Your task to perform on an android device: toggle sleep mode Image 0: 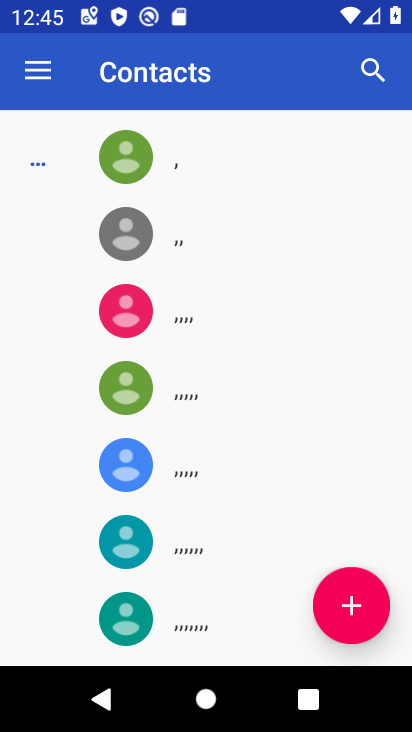
Step 0: press home button
Your task to perform on an android device: toggle sleep mode Image 1: 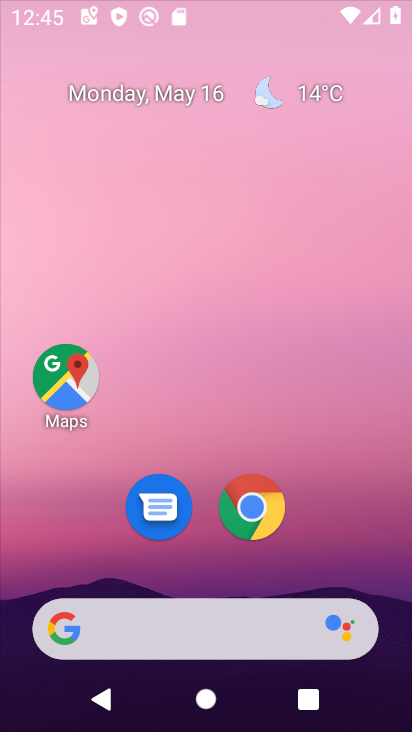
Step 1: drag from (262, 584) to (292, 181)
Your task to perform on an android device: toggle sleep mode Image 2: 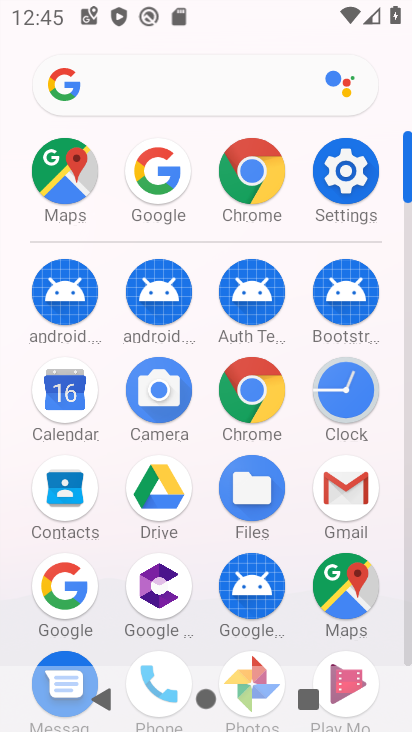
Step 2: click (346, 191)
Your task to perform on an android device: toggle sleep mode Image 3: 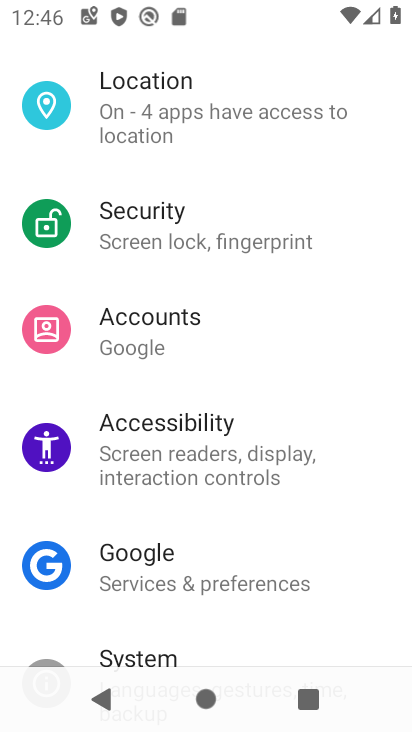
Step 3: task complete